Your task to perform on an android device: turn on notifications settings in the gmail app Image 0: 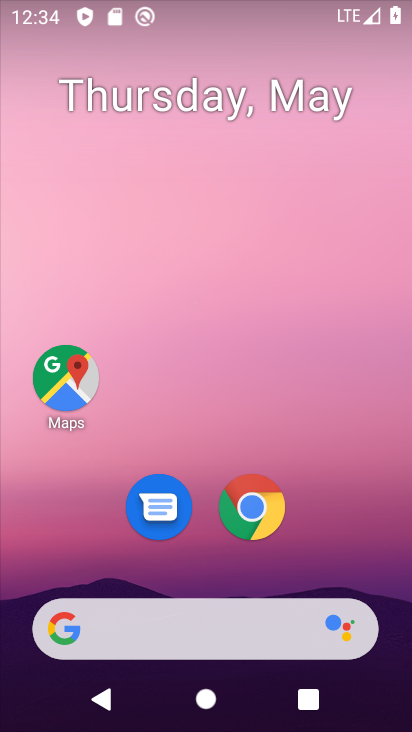
Step 0: drag from (186, 573) to (189, 155)
Your task to perform on an android device: turn on notifications settings in the gmail app Image 1: 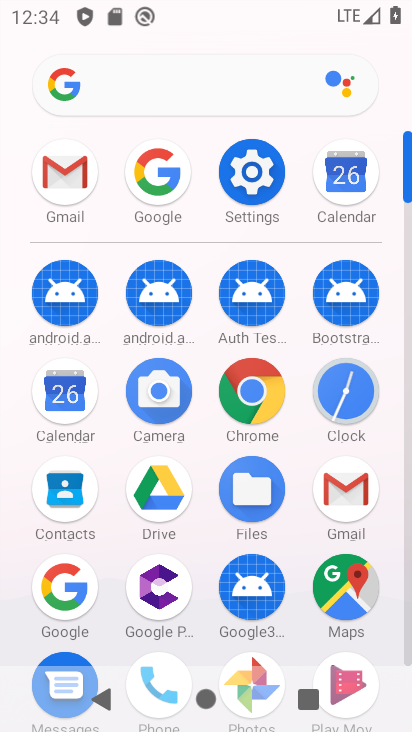
Step 1: click (79, 175)
Your task to perform on an android device: turn on notifications settings in the gmail app Image 2: 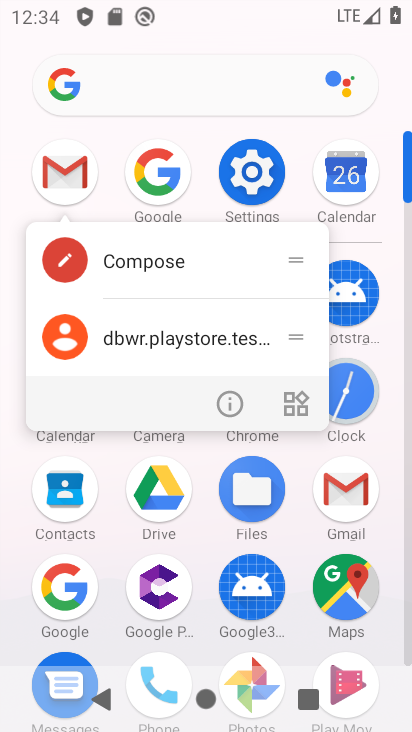
Step 2: click (79, 175)
Your task to perform on an android device: turn on notifications settings in the gmail app Image 3: 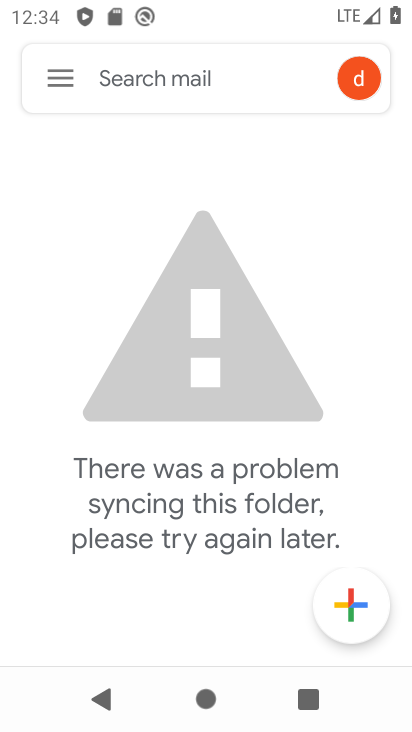
Step 3: click (52, 74)
Your task to perform on an android device: turn on notifications settings in the gmail app Image 4: 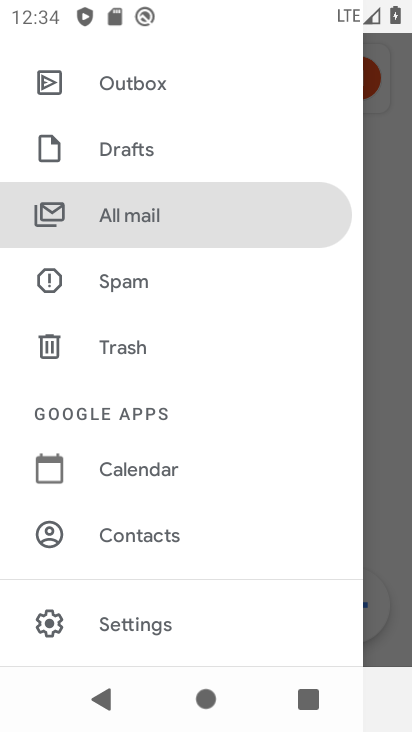
Step 4: click (155, 623)
Your task to perform on an android device: turn on notifications settings in the gmail app Image 5: 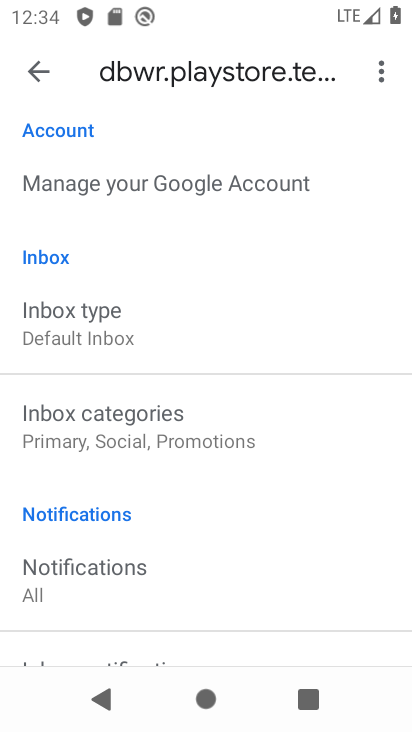
Step 5: drag from (172, 561) to (224, 230)
Your task to perform on an android device: turn on notifications settings in the gmail app Image 6: 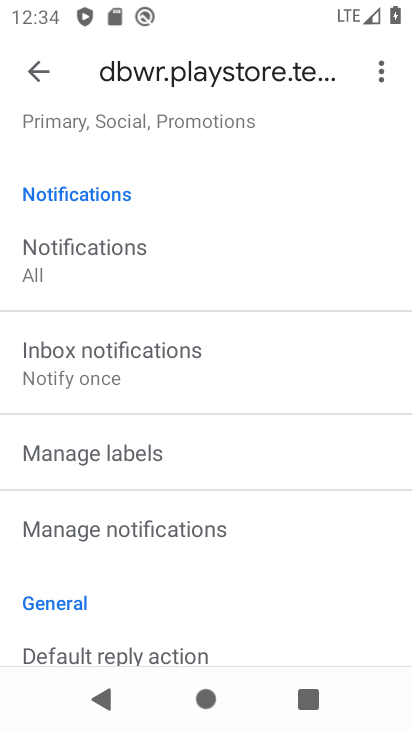
Step 6: drag from (215, 595) to (219, 521)
Your task to perform on an android device: turn on notifications settings in the gmail app Image 7: 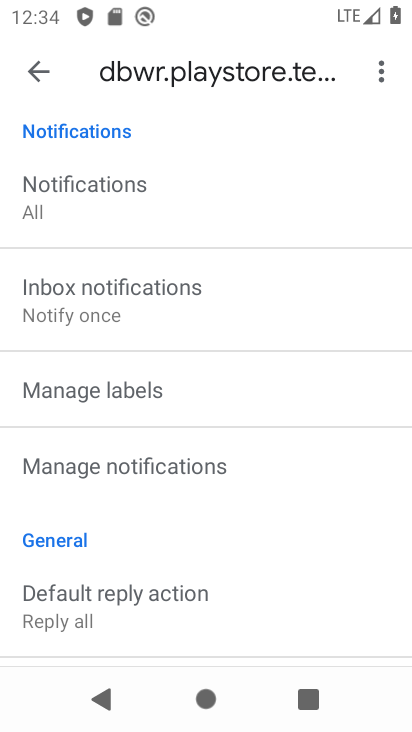
Step 7: click (219, 461)
Your task to perform on an android device: turn on notifications settings in the gmail app Image 8: 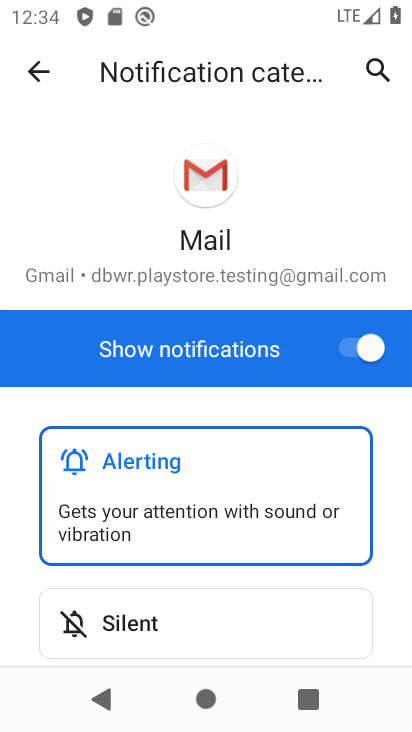
Step 8: task complete